Your task to perform on an android device: change keyboard looks Image 0: 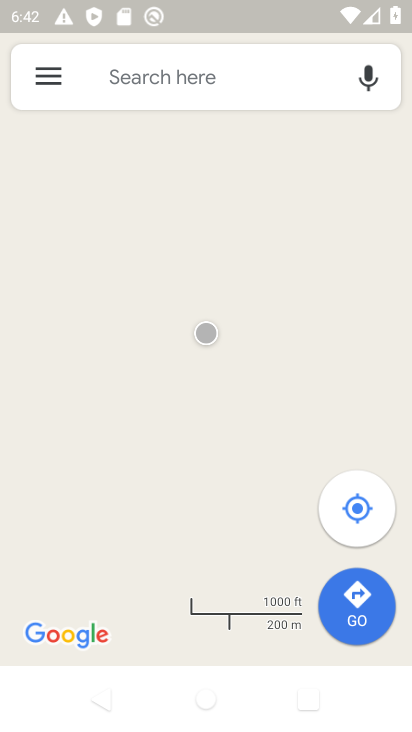
Step 0: press home button
Your task to perform on an android device: change keyboard looks Image 1: 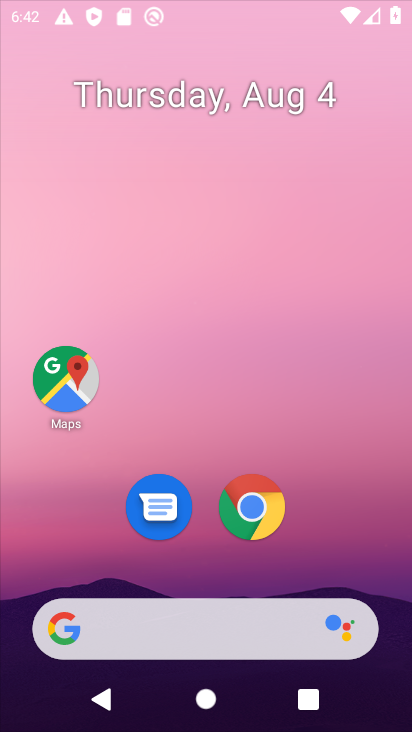
Step 1: drag from (319, 643) to (182, 33)
Your task to perform on an android device: change keyboard looks Image 2: 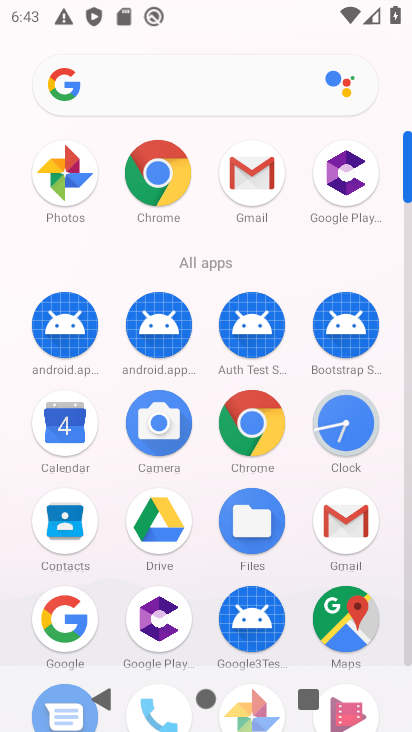
Step 2: drag from (200, 595) to (224, 111)
Your task to perform on an android device: change keyboard looks Image 3: 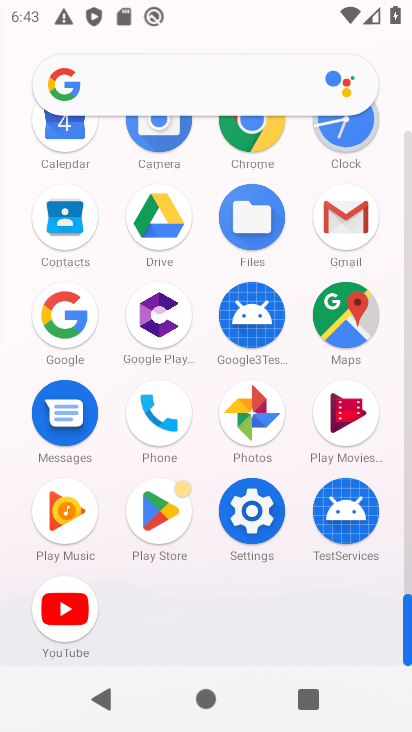
Step 3: click (258, 533)
Your task to perform on an android device: change keyboard looks Image 4: 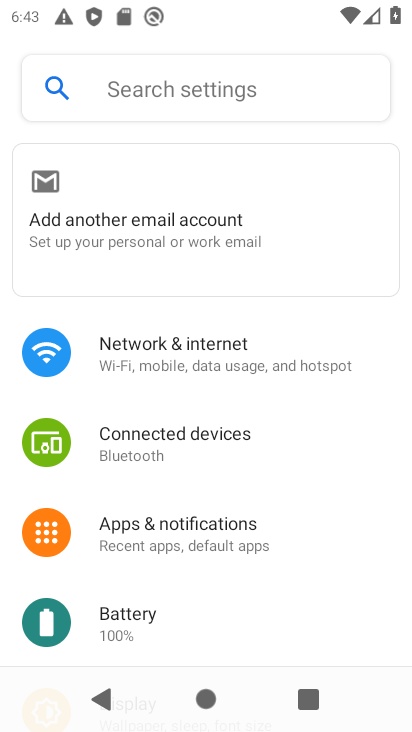
Step 4: drag from (258, 533) to (258, 230)
Your task to perform on an android device: change keyboard looks Image 5: 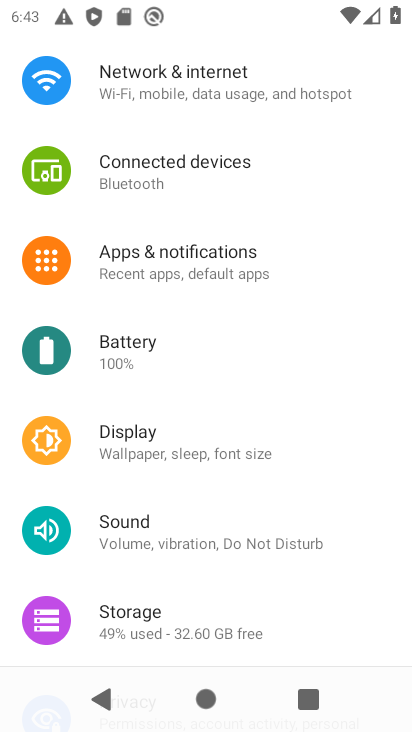
Step 5: drag from (221, 607) to (149, 83)
Your task to perform on an android device: change keyboard looks Image 6: 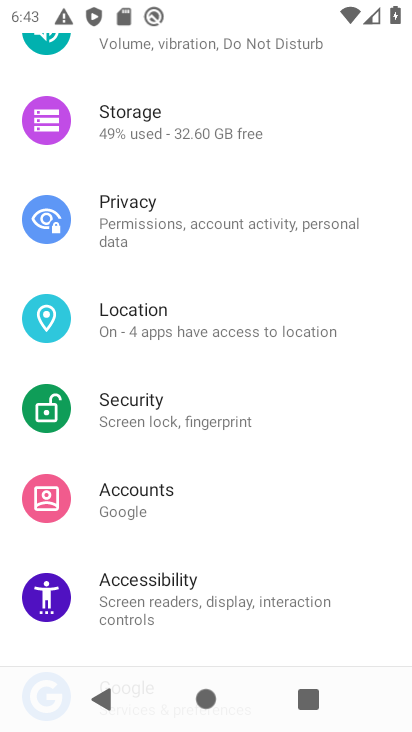
Step 6: drag from (160, 595) to (169, 85)
Your task to perform on an android device: change keyboard looks Image 7: 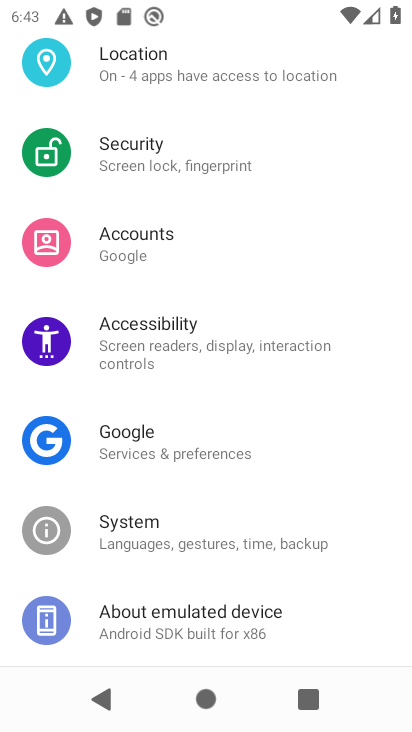
Step 7: click (189, 546)
Your task to perform on an android device: change keyboard looks Image 8: 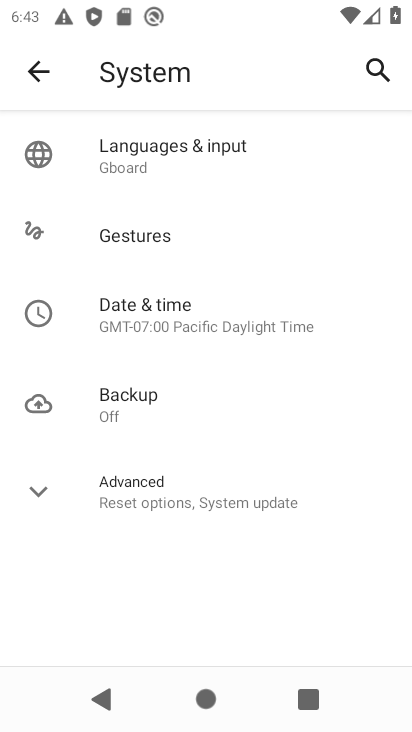
Step 8: click (166, 175)
Your task to perform on an android device: change keyboard looks Image 9: 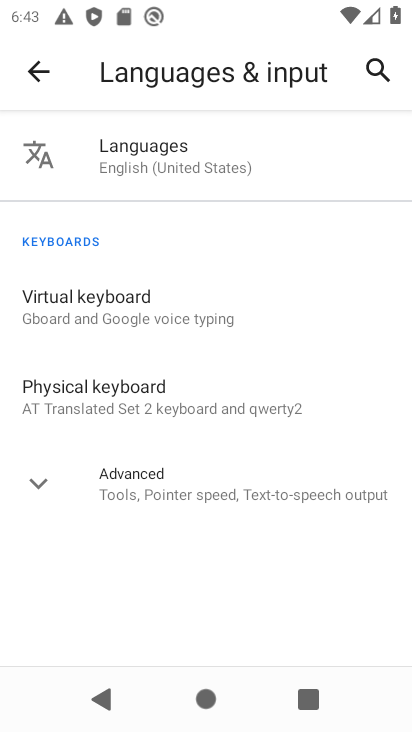
Step 9: click (140, 318)
Your task to perform on an android device: change keyboard looks Image 10: 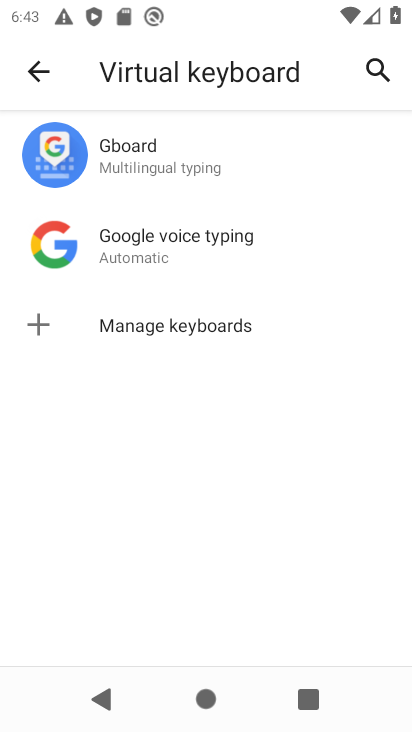
Step 10: click (143, 162)
Your task to perform on an android device: change keyboard looks Image 11: 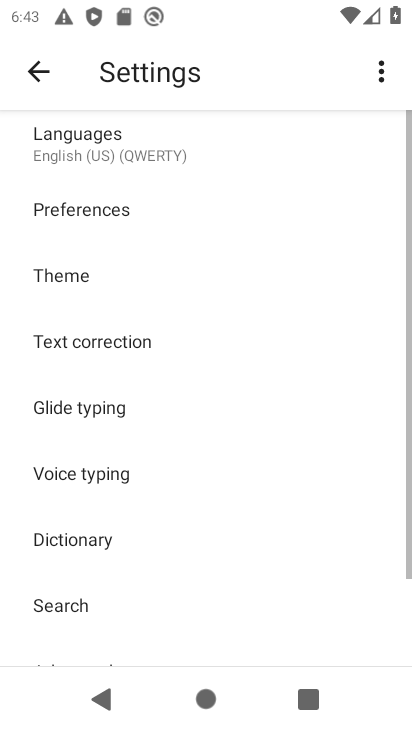
Step 11: click (87, 270)
Your task to perform on an android device: change keyboard looks Image 12: 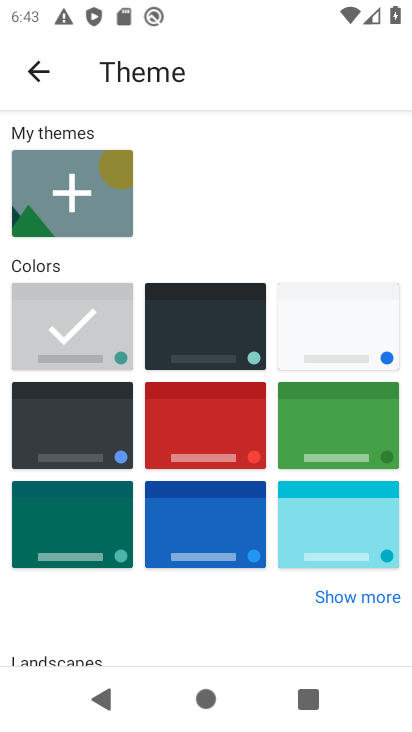
Step 12: click (246, 353)
Your task to perform on an android device: change keyboard looks Image 13: 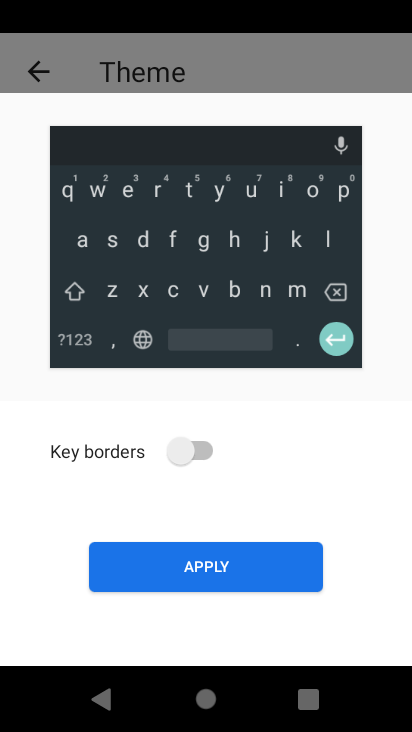
Step 13: click (184, 568)
Your task to perform on an android device: change keyboard looks Image 14: 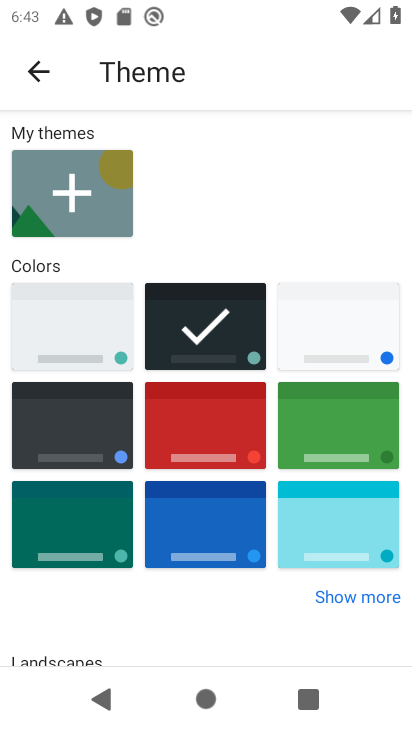
Step 14: task complete